Your task to perform on an android device: Clear the cart on costco.com. Add macbook pro 13 inch to the cart on costco.com, then select checkout. Image 0: 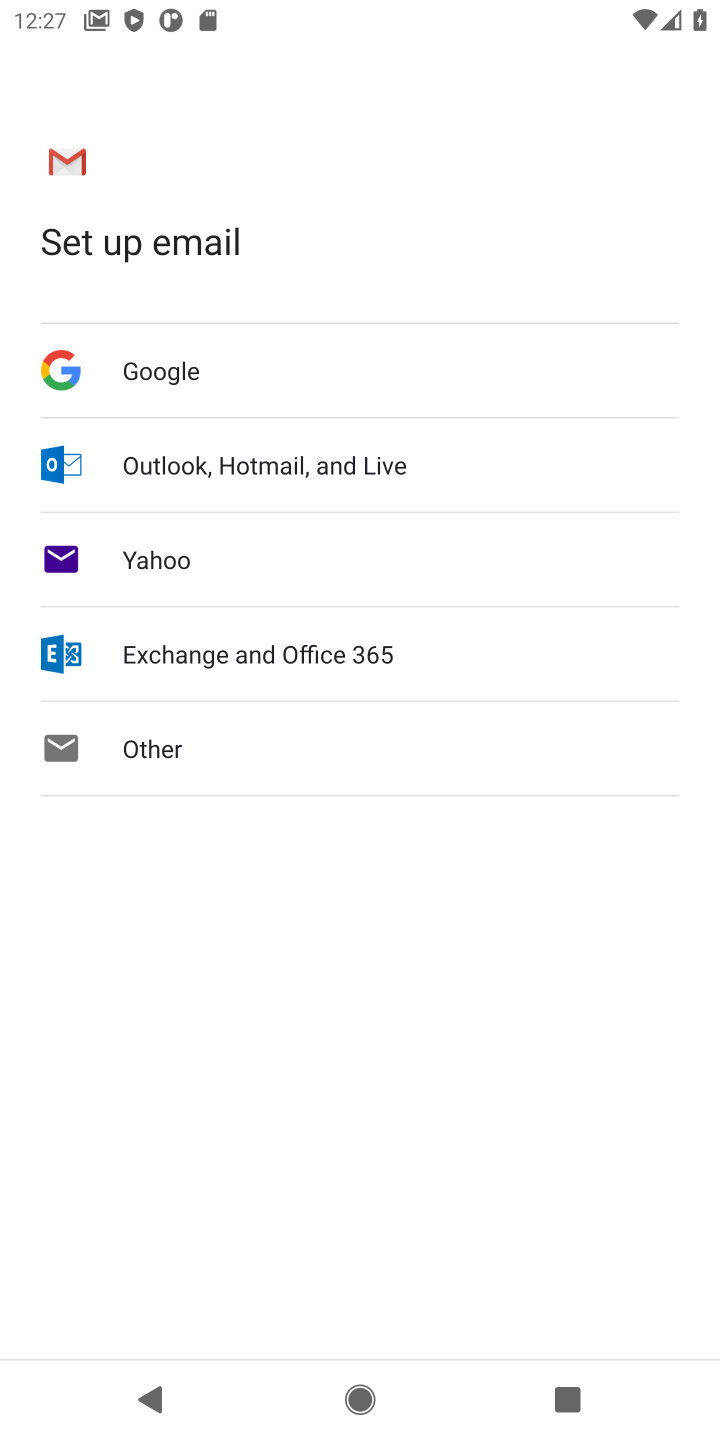
Step 0: press home button
Your task to perform on an android device: Clear the cart on costco.com. Add macbook pro 13 inch to the cart on costco.com, then select checkout. Image 1: 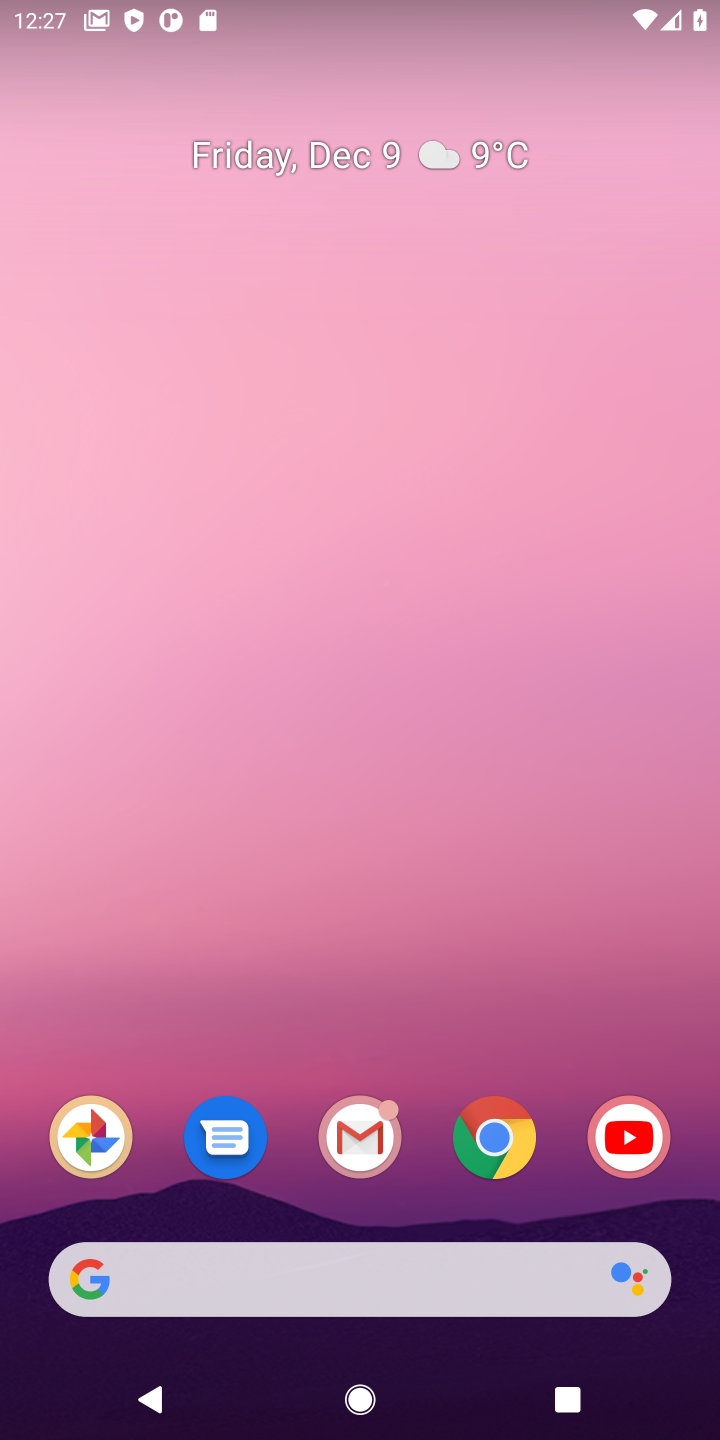
Step 1: click (279, 1282)
Your task to perform on an android device: Clear the cart on costco.com. Add macbook pro 13 inch to the cart on costco.com, then select checkout. Image 2: 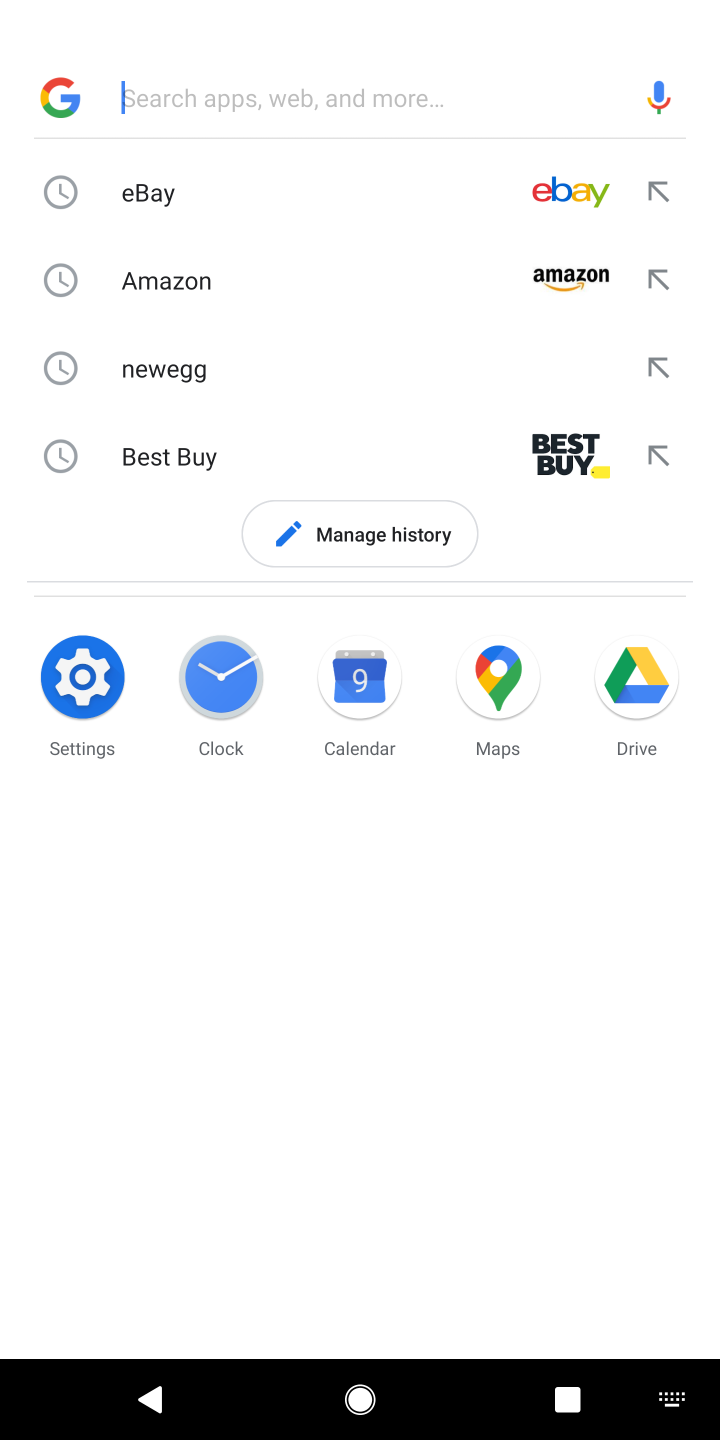
Step 2: type "costco"
Your task to perform on an android device: Clear the cart on costco.com. Add macbook pro 13 inch to the cart on costco.com, then select checkout. Image 3: 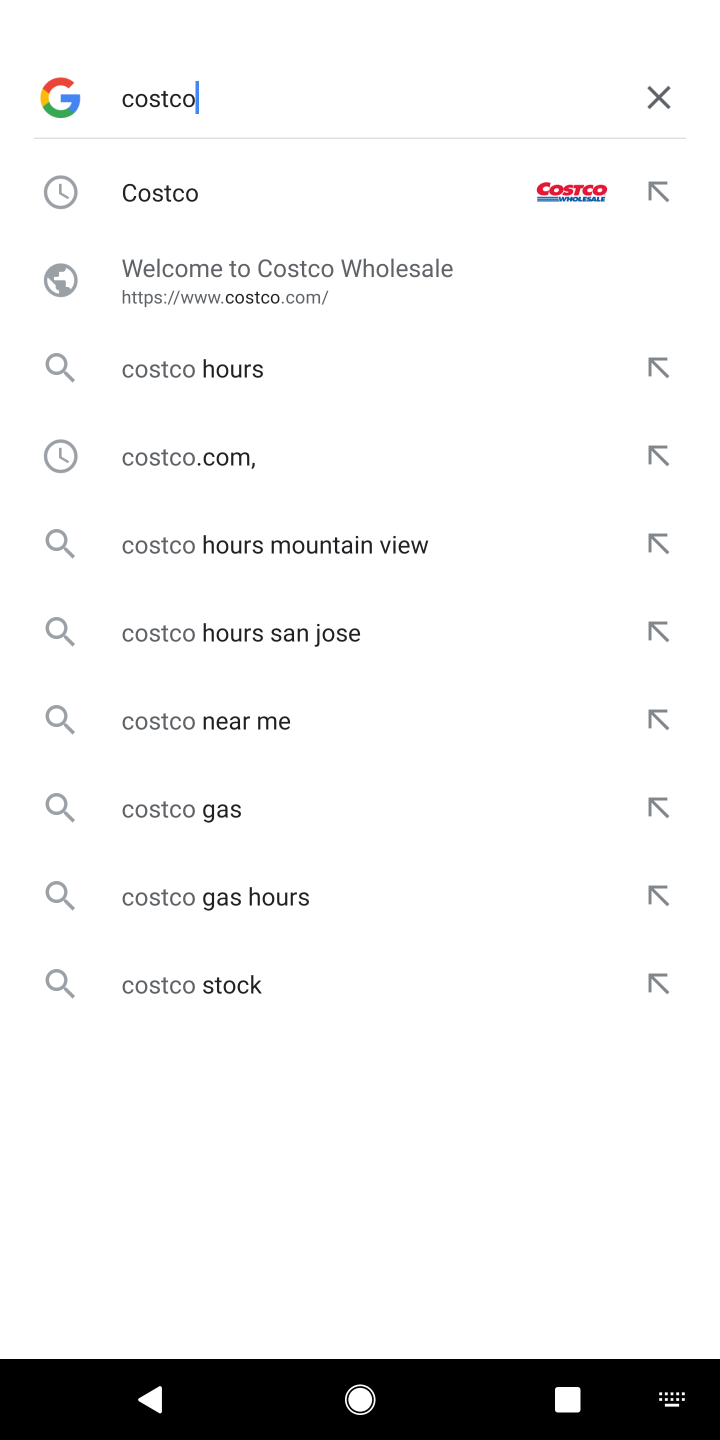
Step 3: click (134, 218)
Your task to perform on an android device: Clear the cart on costco.com. Add macbook pro 13 inch to the cart on costco.com, then select checkout. Image 4: 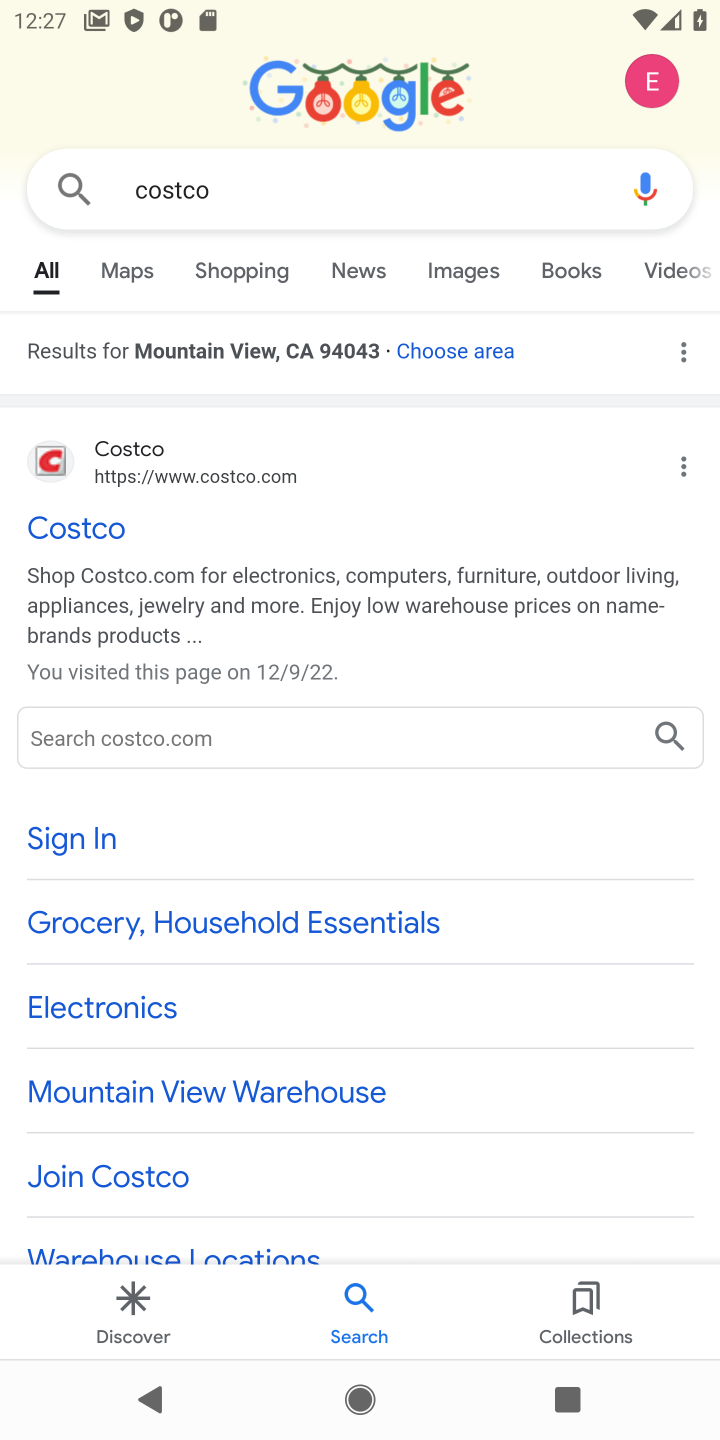
Step 4: click (69, 519)
Your task to perform on an android device: Clear the cart on costco.com. Add macbook pro 13 inch to the cart on costco.com, then select checkout. Image 5: 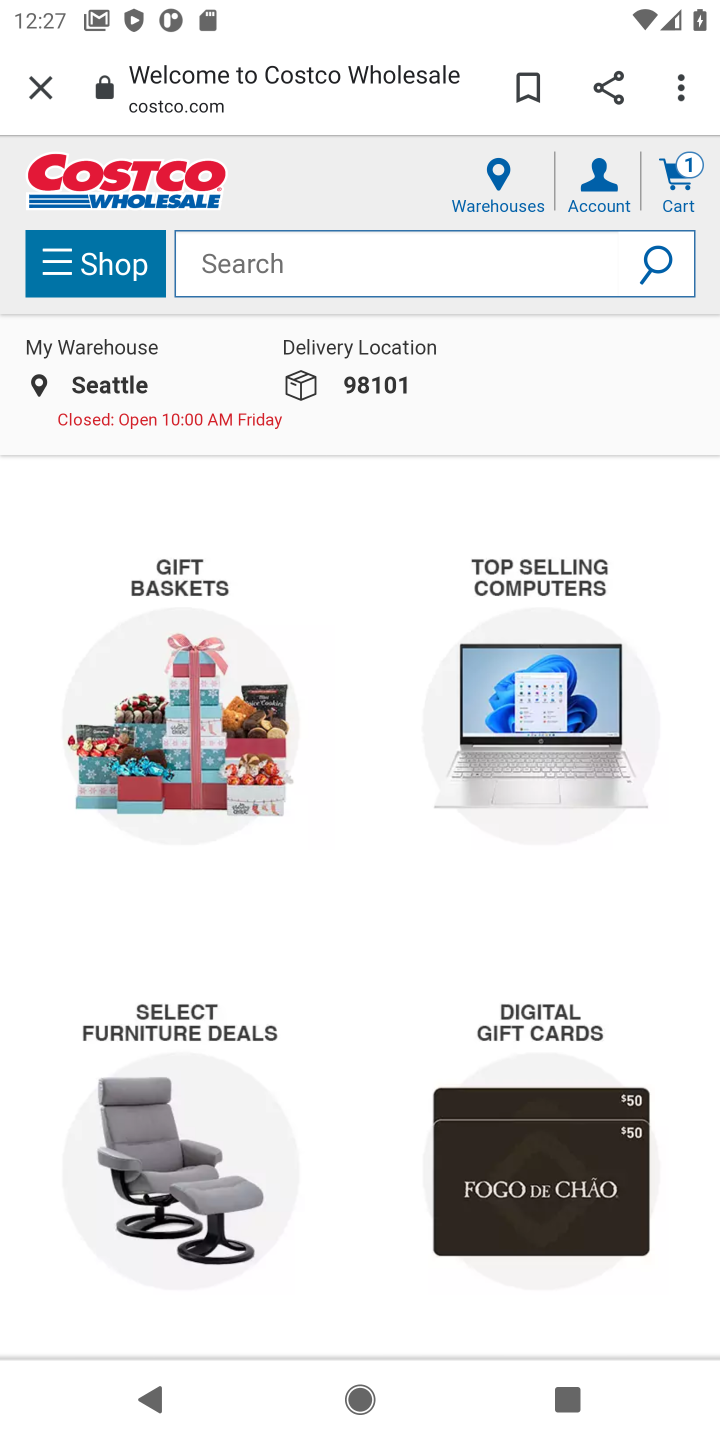
Step 5: click (224, 268)
Your task to perform on an android device: Clear the cart on costco.com. Add macbook pro 13 inch to the cart on costco.com, then select checkout. Image 6: 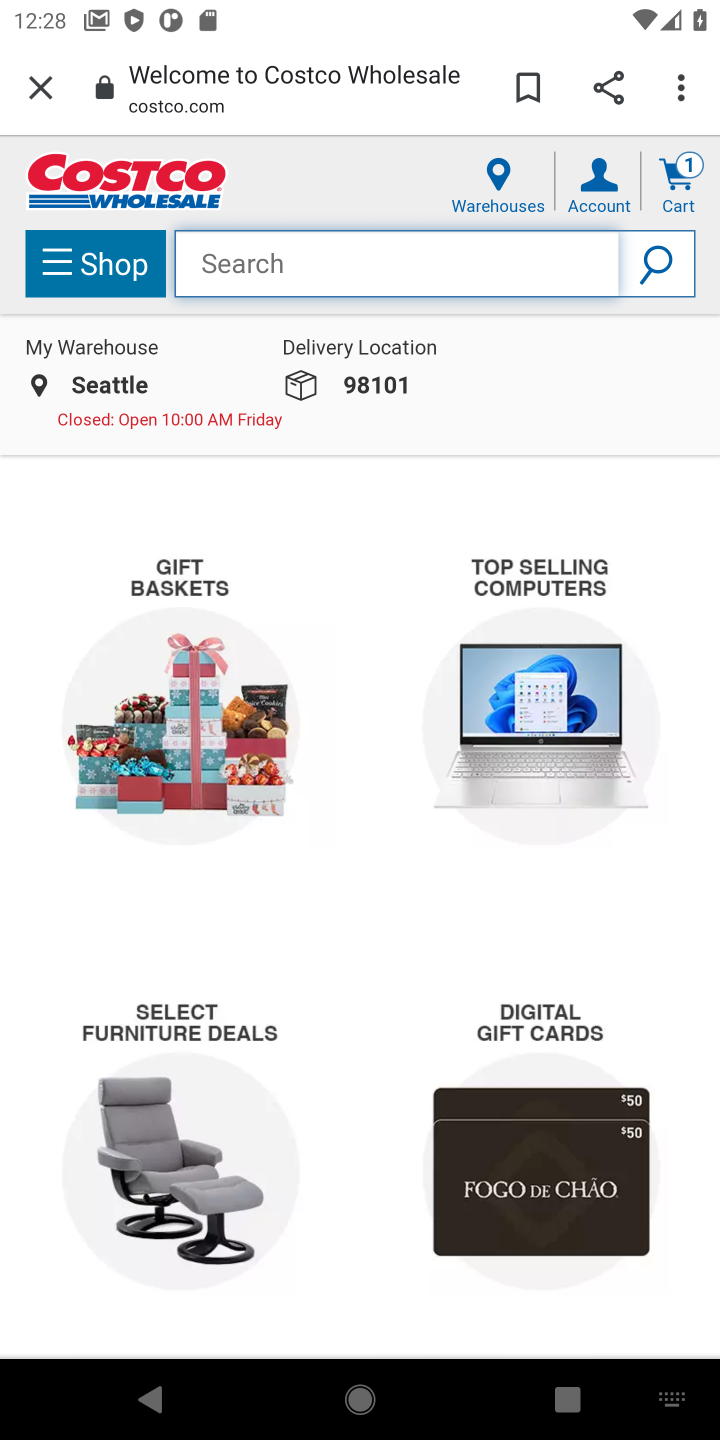
Step 6: type "macbook pro 13"
Your task to perform on an android device: Clear the cart on costco.com. Add macbook pro 13 inch to the cart on costco.com, then select checkout. Image 7: 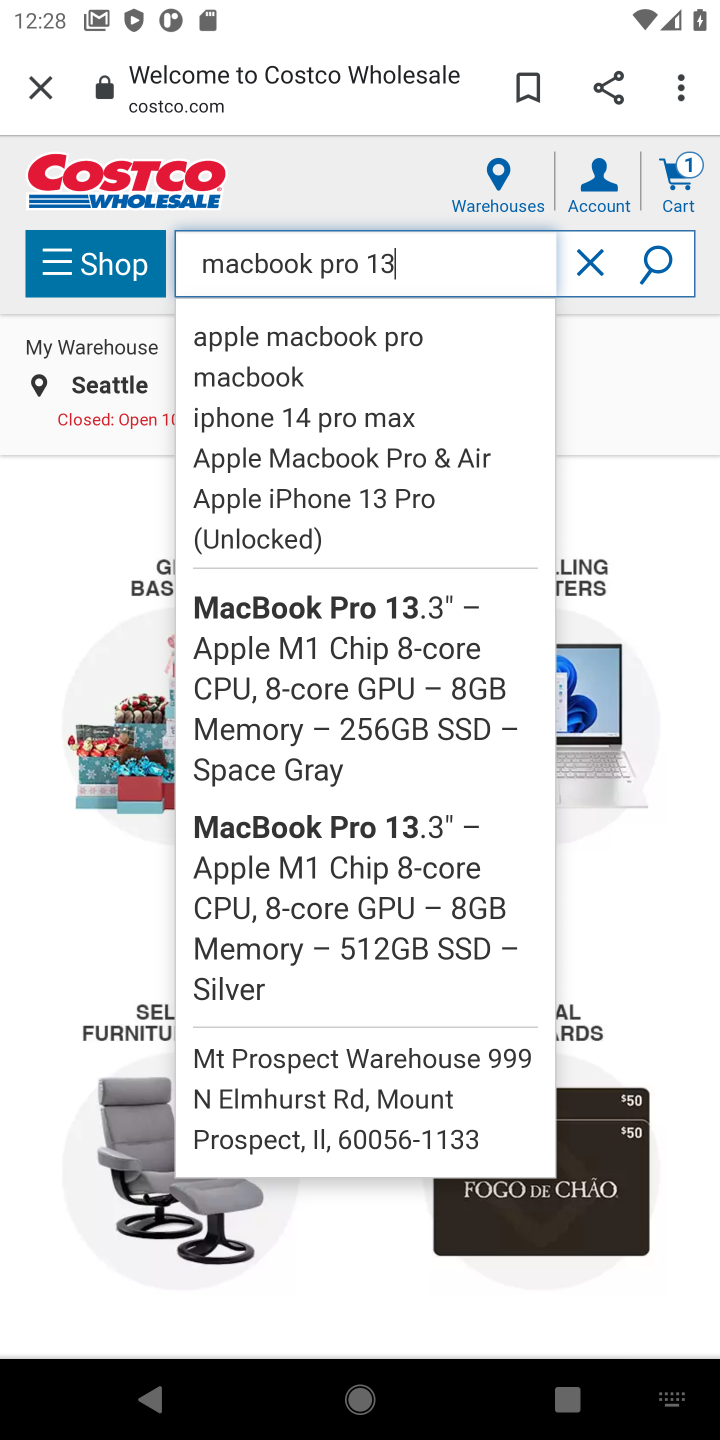
Step 7: click (671, 268)
Your task to perform on an android device: Clear the cart on costco.com. Add macbook pro 13 inch to the cart on costco.com, then select checkout. Image 8: 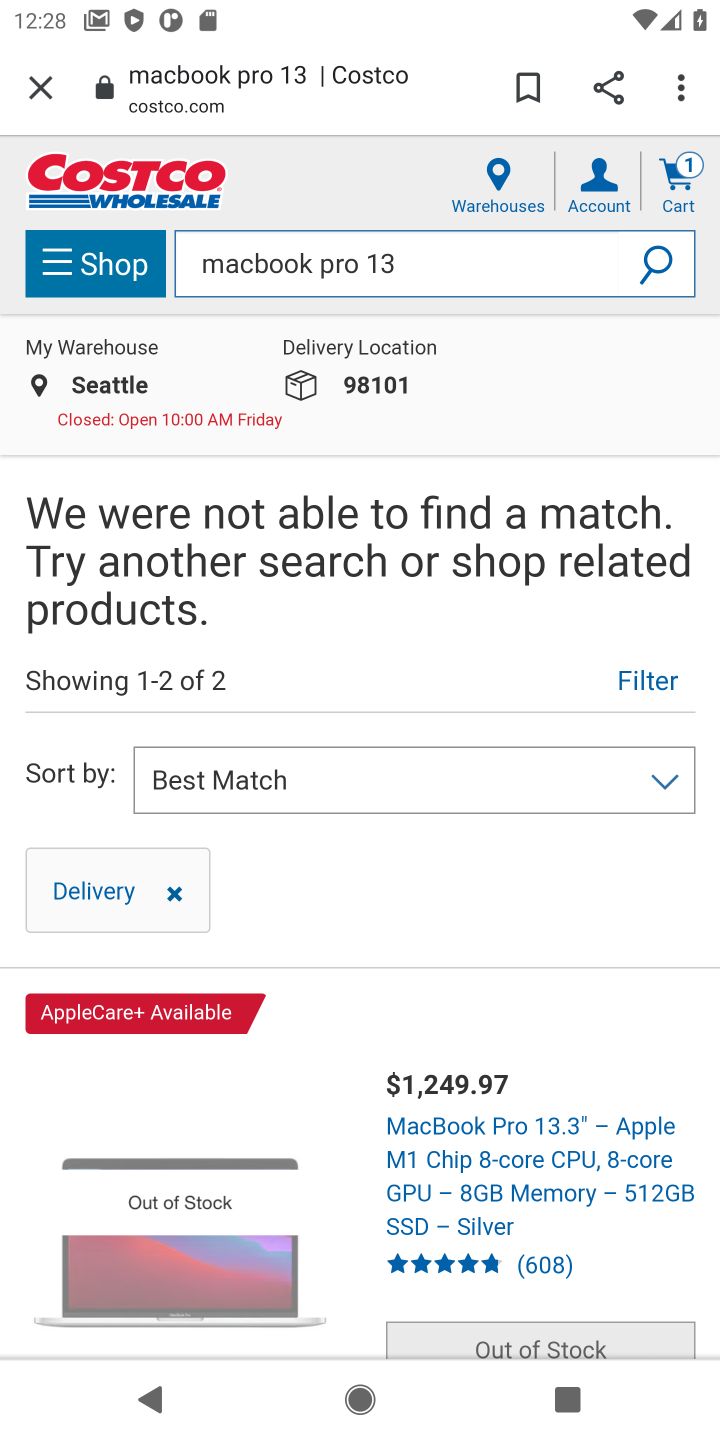
Step 8: task complete